Your task to perform on an android device: see tabs open on other devices in the chrome app Image 0: 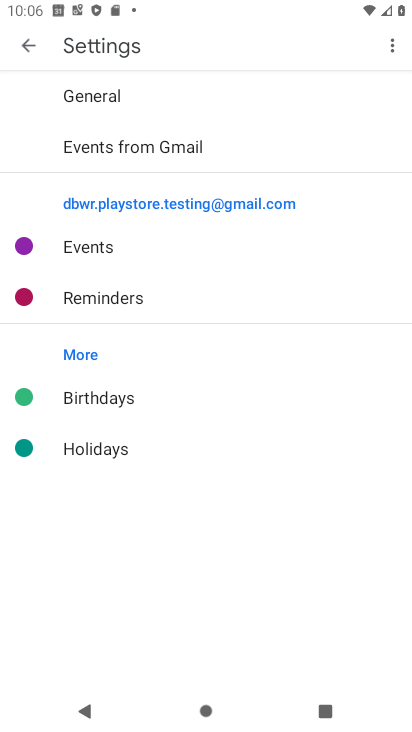
Step 0: press home button
Your task to perform on an android device: see tabs open on other devices in the chrome app Image 1: 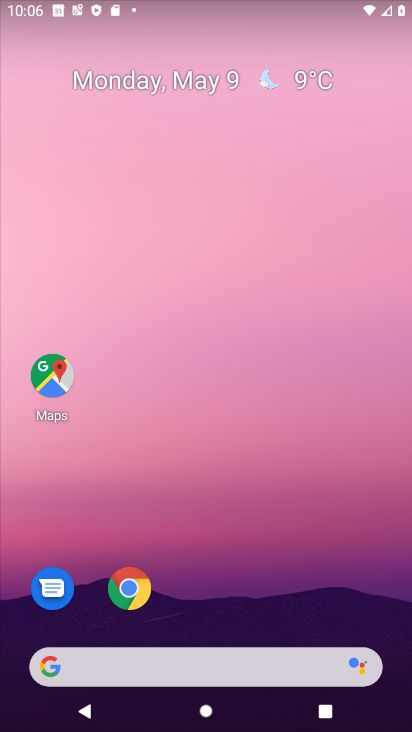
Step 1: drag from (156, 673) to (328, 175)
Your task to perform on an android device: see tabs open on other devices in the chrome app Image 2: 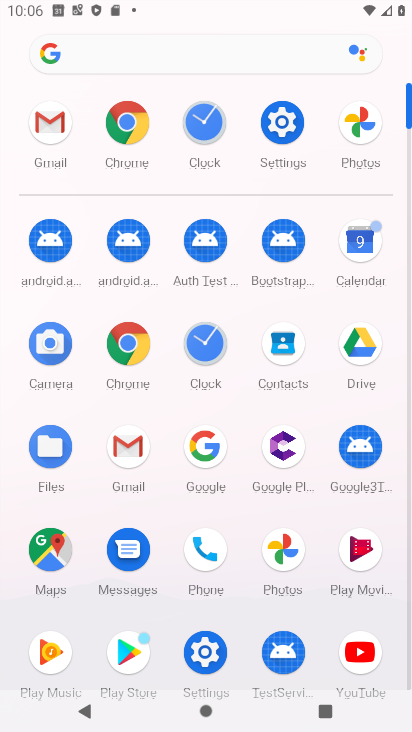
Step 2: click (134, 126)
Your task to perform on an android device: see tabs open on other devices in the chrome app Image 3: 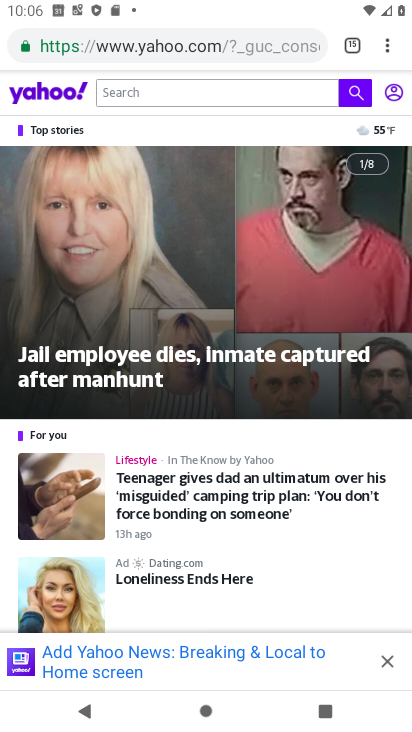
Step 3: task complete